Your task to perform on an android device: Open Google Maps and go to "Timeline" Image 0: 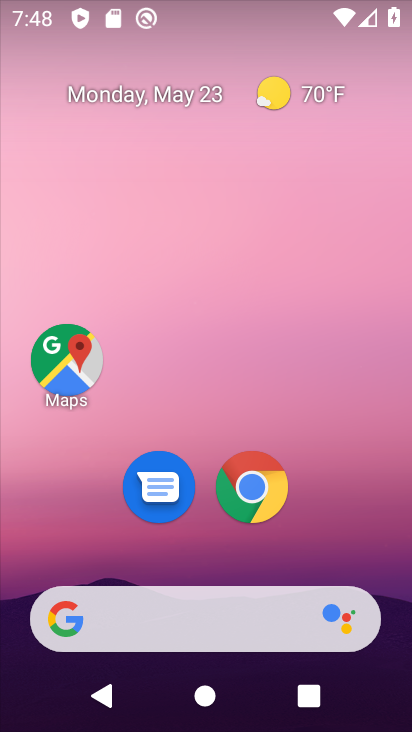
Step 0: click (71, 369)
Your task to perform on an android device: Open Google Maps and go to "Timeline" Image 1: 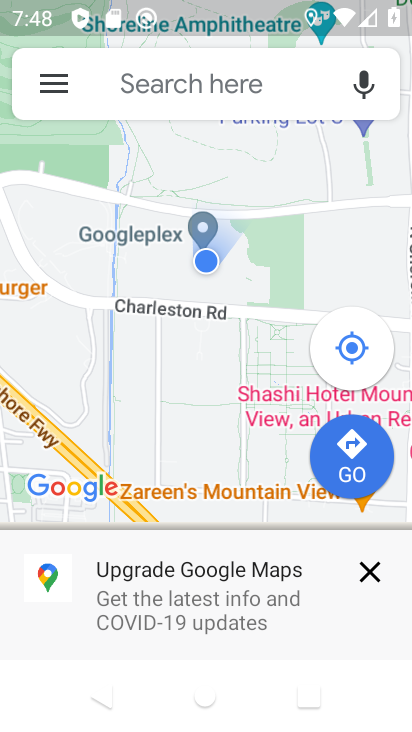
Step 1: click (42, 92)
Your task to perform on an android device: Open Google Maps and go to "Timeline" Image 2: 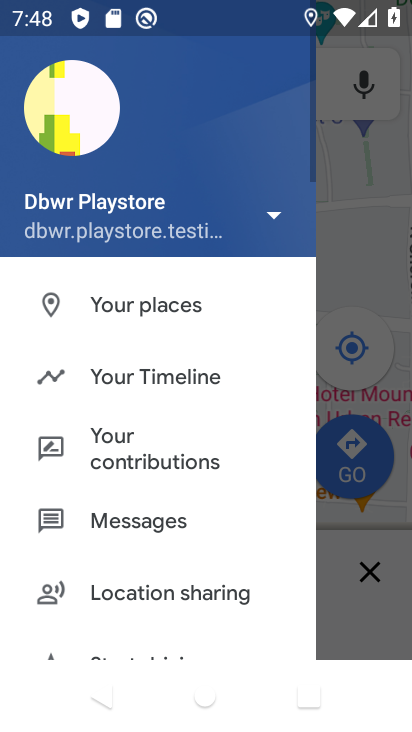
Step 2: click (96, 377)
Your task to perform on an android device: Open Google Maps and go to "Timeline" Image 3: 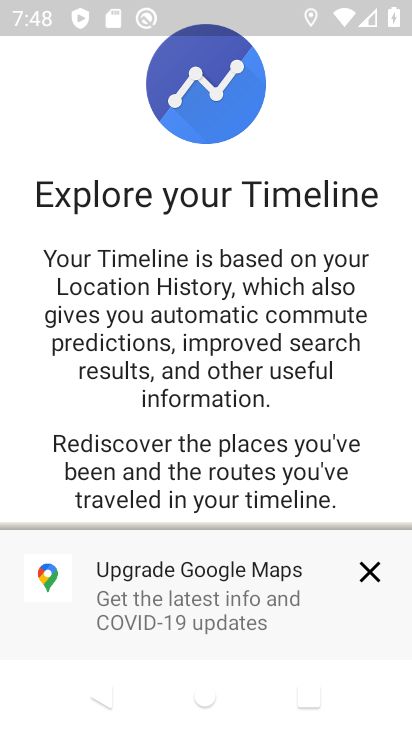
Step 3: click (363, 581)
Your task to perform on an android device: Open Google Maps and go to "Timeline" Image 4: 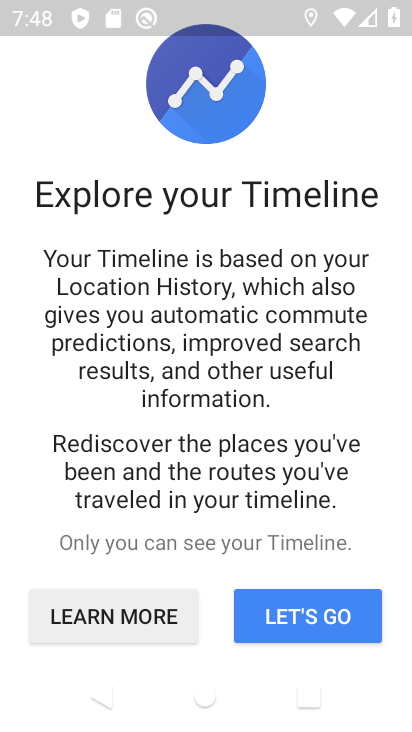
Step 4: click (339, 612)
Your task to perform on an android device: Open Google Maps and go to "Timeline" Image 5: 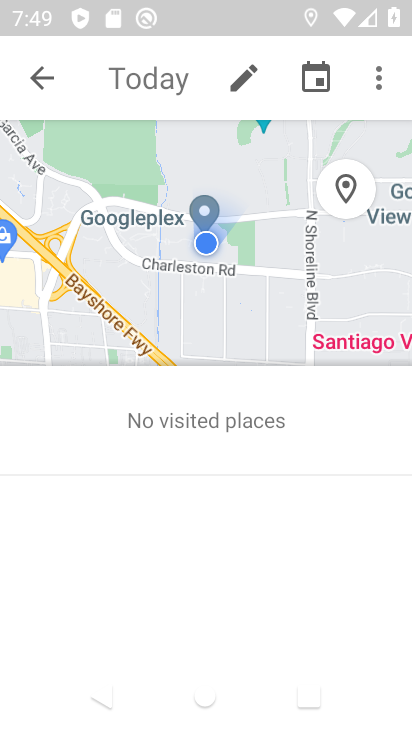
Step 5: task complete